Your task to perform on an android device: turn notification dots off Image 0: 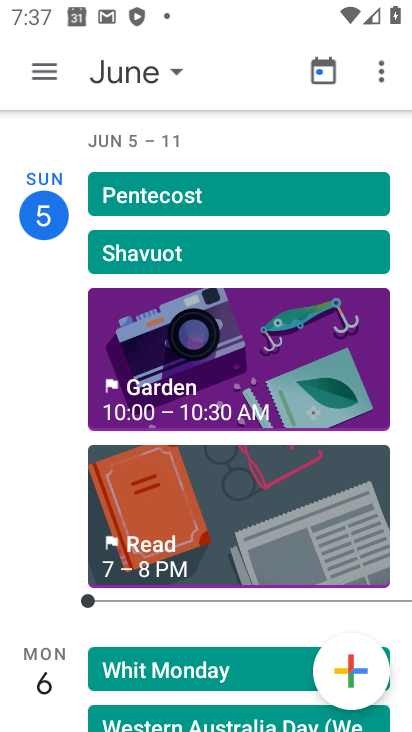
Step 0: press home button
Your task to perform on an android device: turn notification dots off Image 1: 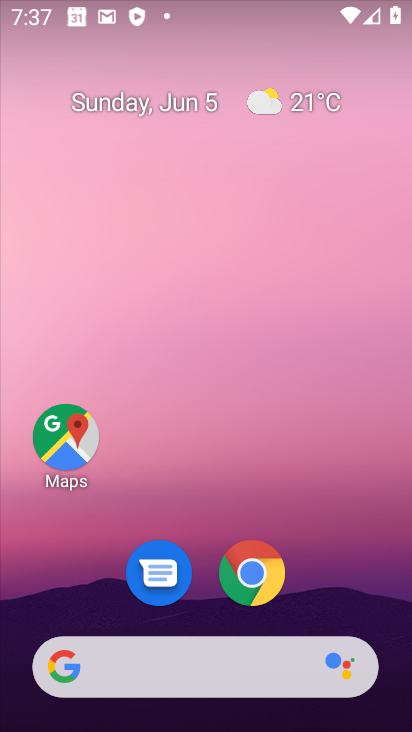
Step 1: drag from (209, 612) to (167, 243)
Your task to perform on an android device: turn notification dots off Image 2: 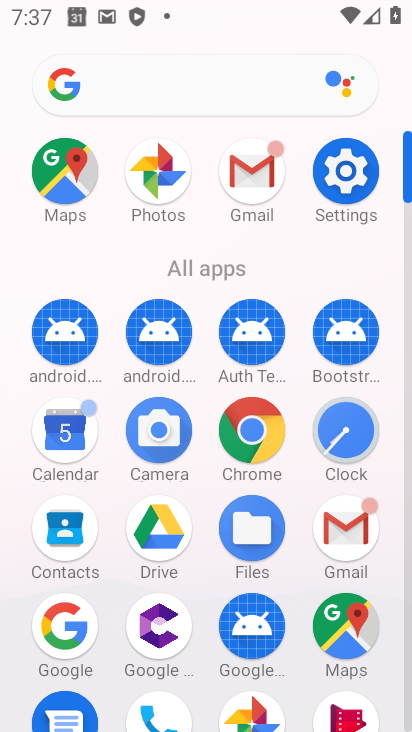
Step 2: click (332, 170)
Your task to perform on an android device: turn notification dots off Image 3: 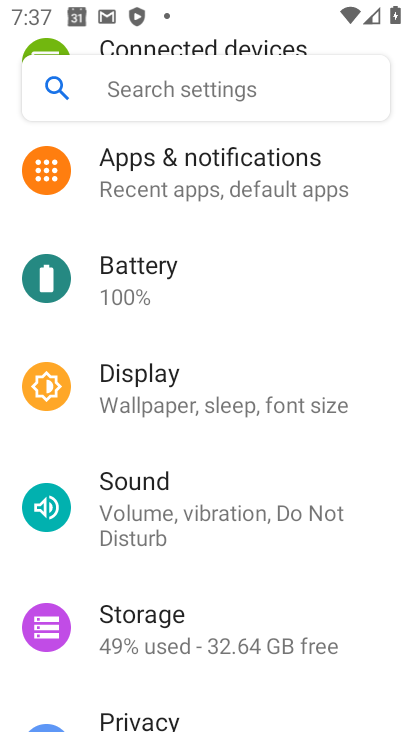
Step 3: drag from (219, 723) to (255, 712)
Your task to perform on an android device: turn notification dots off Image 4: 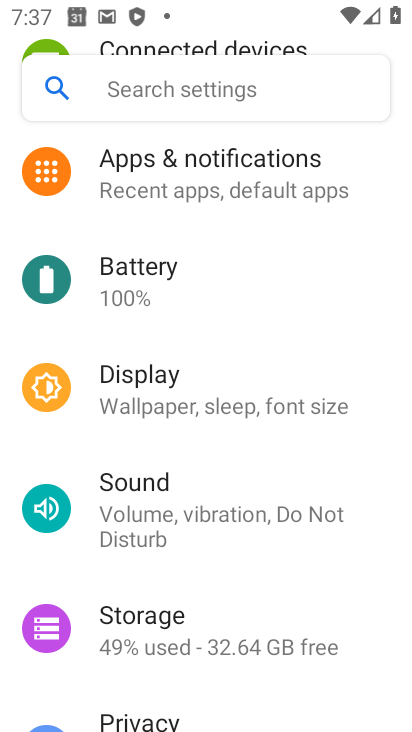
Step 4: click (155, 78)
Your task to perform on an android device: turn notification dots off Image 5: 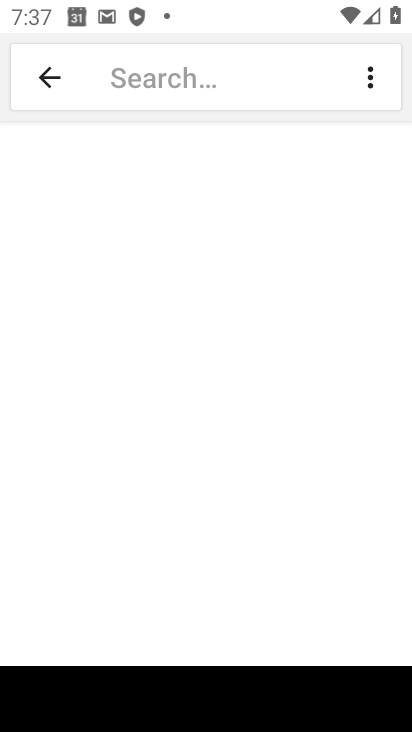
Step 5: type "notification dots "
Your task to perform on an android device: turn notification dots off Image 6: 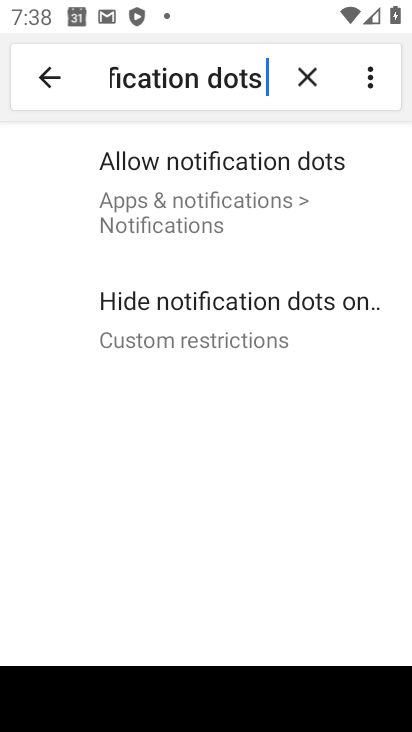
Step 6: click (227, 182)
Your task to perform on an android device: turn notification dots off Image 7: 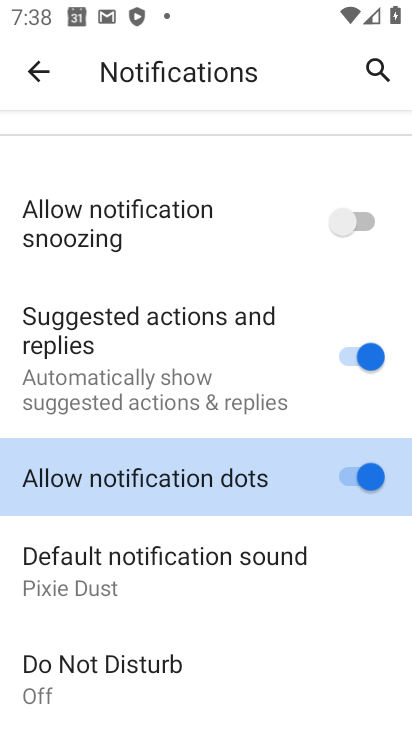
Step 7: click (378, 473)
Your task to perform on an android device: turn notification dots off Image 8: 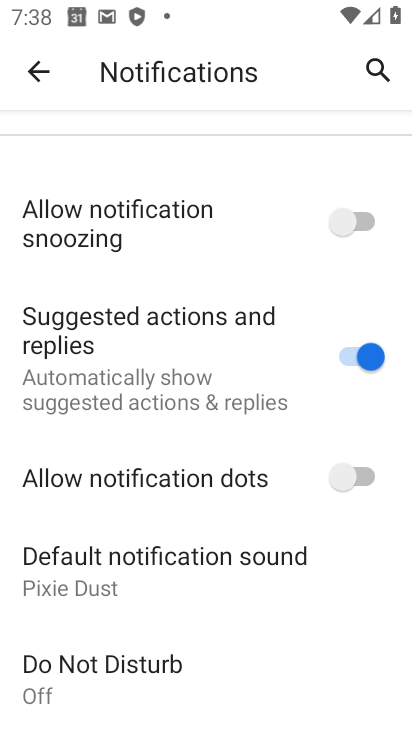
Step 8: task complete